Your task to perform on an android device: turn off improve location accuracy Image 0: 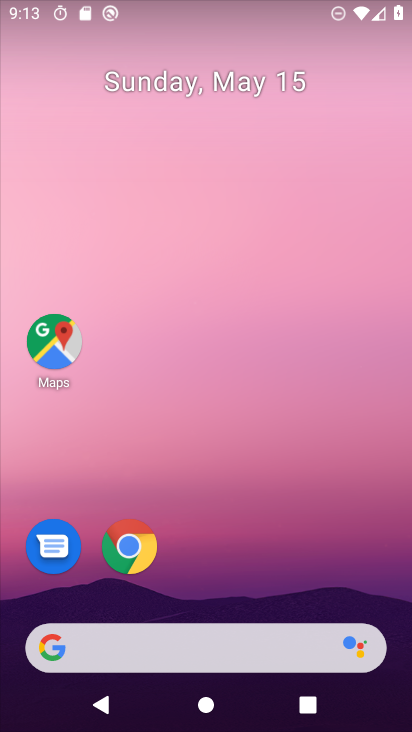
Step 0: drag from (239, 547) to (232, 86)
Your task to perform on an android device: turn off improve location accuracy Image 1: 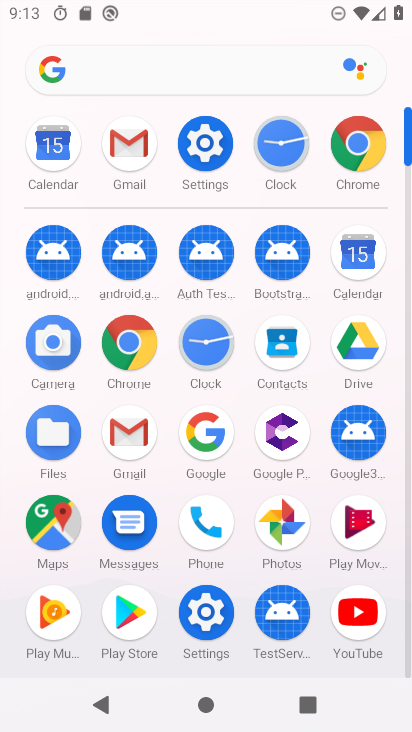
Step 1: click (209, 132)
Your task to perform on an android device: turn off improve location accuracy Image 2: 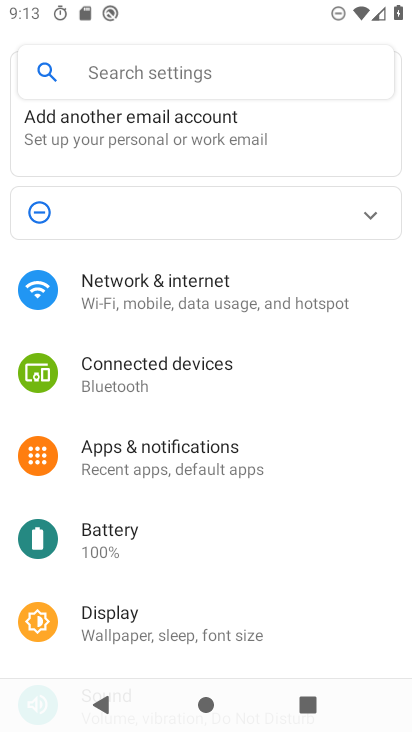
Step 2: drag from (231, 525) to (209, 182)
Your task to perform on an android device: turn off improve location accuracy Image 3: 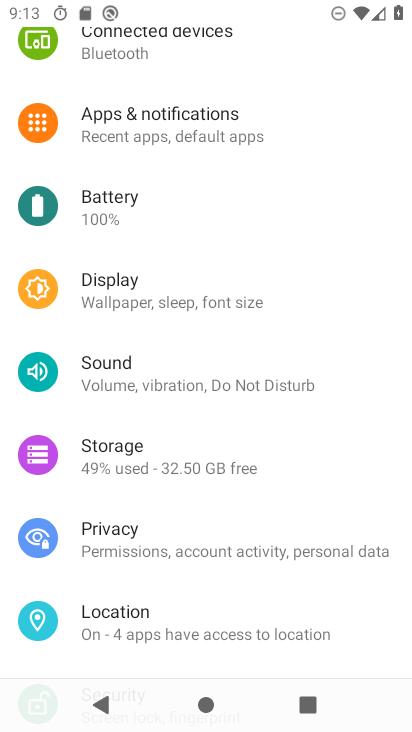
Step 3: click (205, 616)
Your task to perform on an android device: turn off improve location accuracy Image 4: 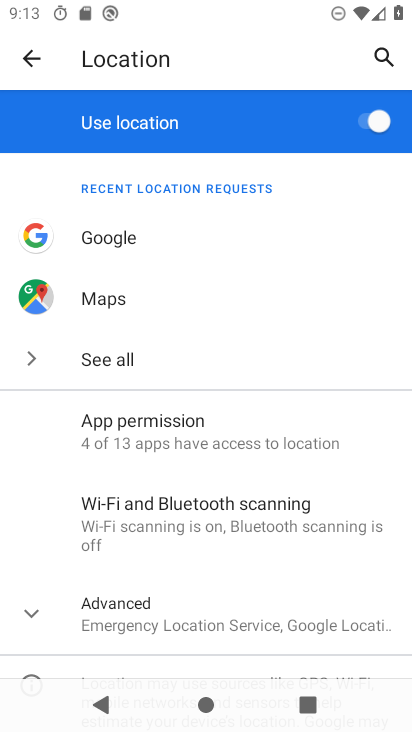
Step 4: click (27, 603)
Your task to perform on an android device: turn off improve location accuracy Image 5: 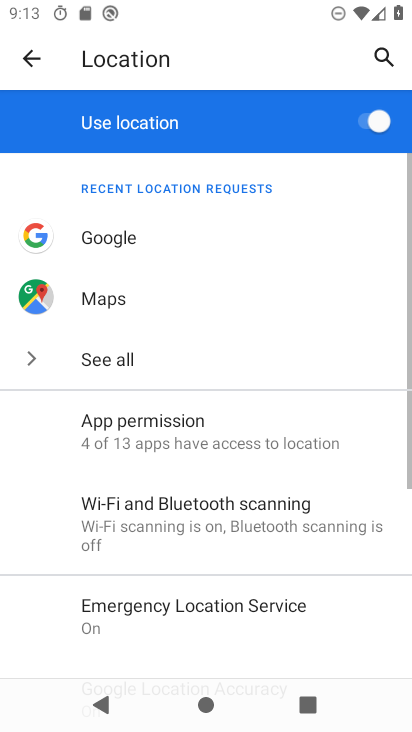
Step 5: drag from (183, 489) to (225, 197)
Your task to perform on an android device: turn off improve location accuracy Image 6: 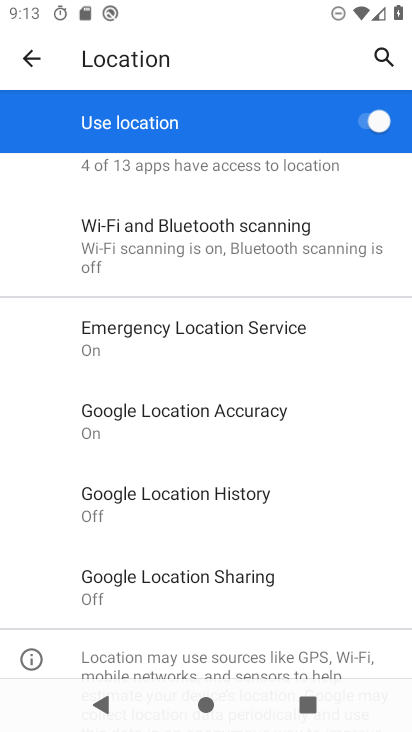
Step 6: click (230, 416)
Your task to perform on an android device: turn off improve location accuracy Image 7: 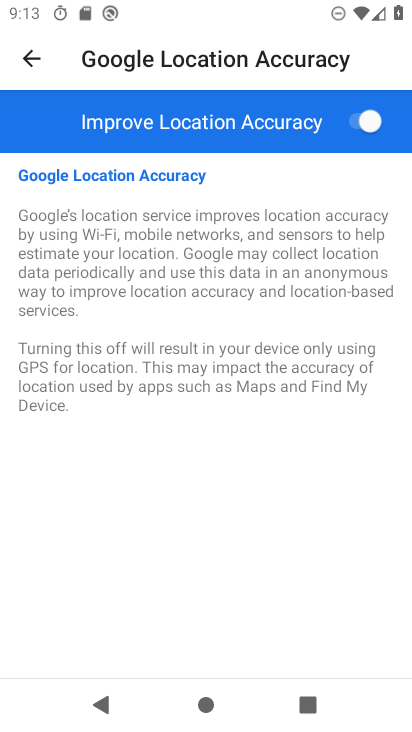
Step 7: click (373, 111)
Your task to perform on an android device: turn off improve location accuracy Image 8: 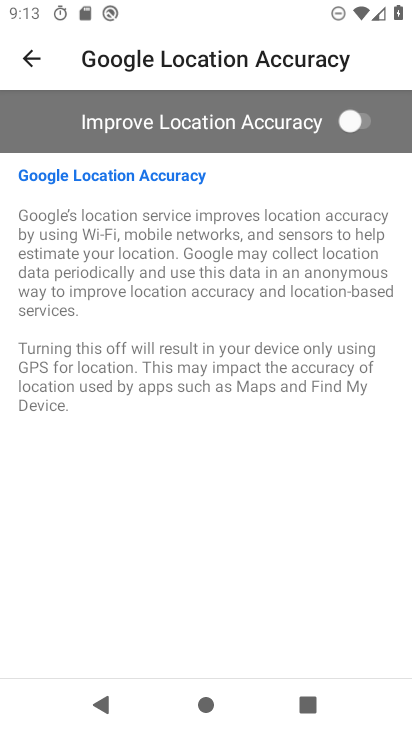
Step 8: task complete